Your task to perform on an android device: Do I have any events this weekend? Image 0: 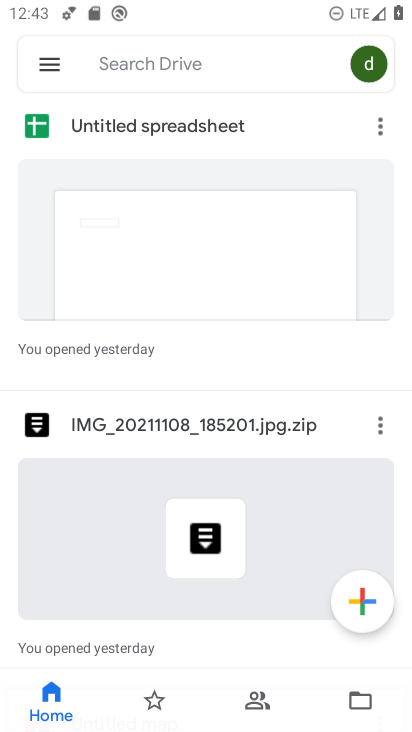
Step 0: press home button
Your task to perform on an android device: Do I have any events this weekend? Image 1: 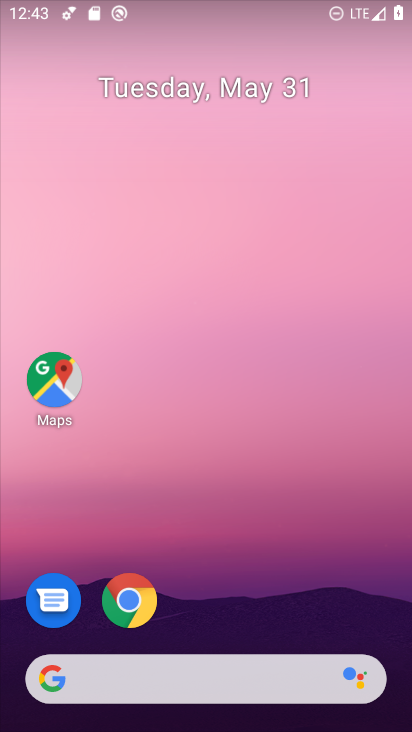
Step 1: drag from (246, 713) to (233, 282)
Your task to perform on an android device: Do I have any events this weekend? Image 2: 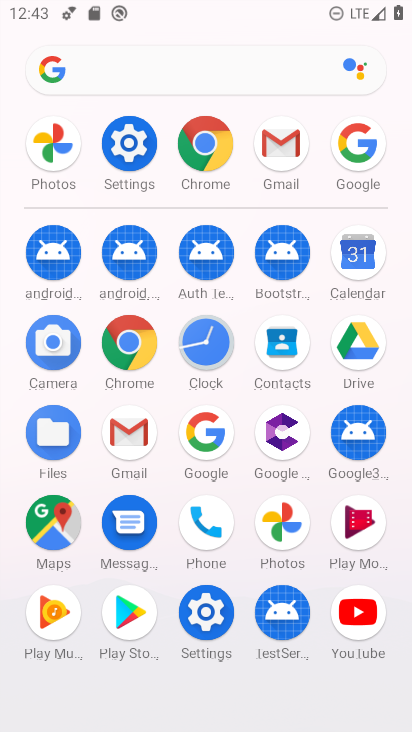
Step 2: click (355, 260)
Your task to perform on an android device: Do I have any events this weekend? Image 3: 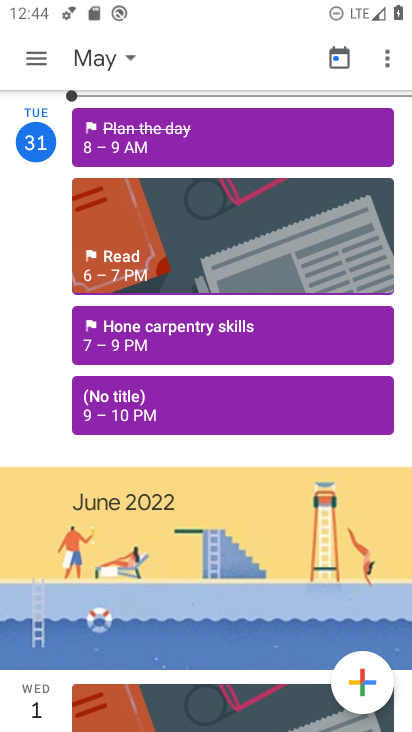
Step 3: click (122, 58)
Your task to perform on an android device: Do I have any events this weekend? Image 4: 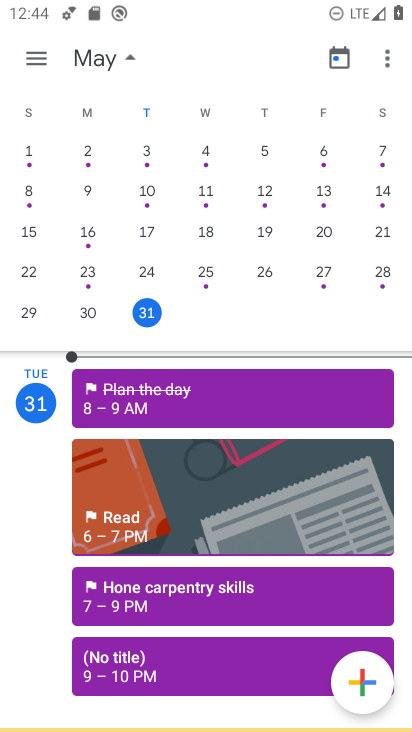
Step 4: drag from (377, 222) to (29, 213)
Your task to perform on an android device: Do I have any events this weekend? Image 5: 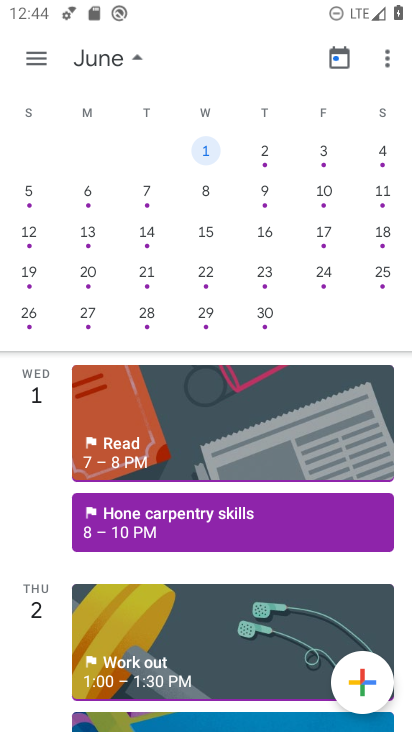
Step 5: click (380, 146)
Your task to perform on an android device: Do I have any events this weekend? Image 6: 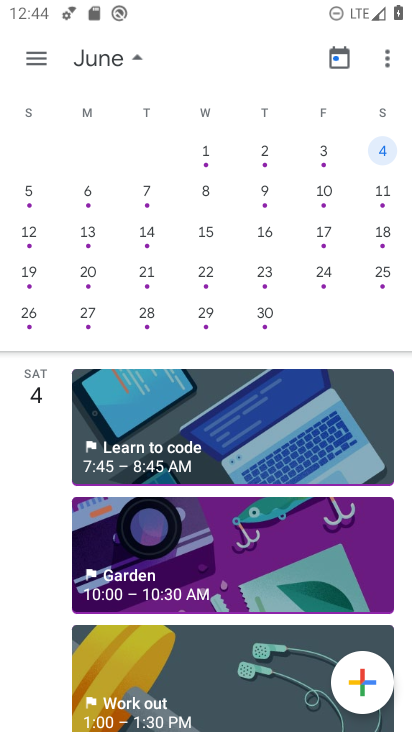
Step 6: click (36, 58)
Your task to perform on an android device: Do I have any events this weekend? Image 7: 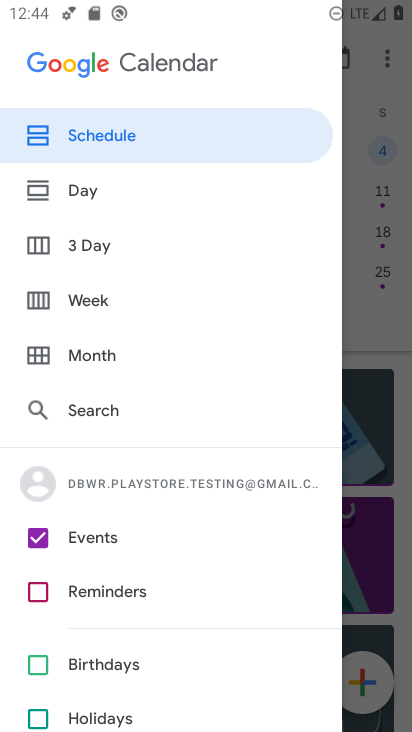
Step 7: click (81, 296)
Your task to perform on an android device: Do I have any events this weekend? Image 8: 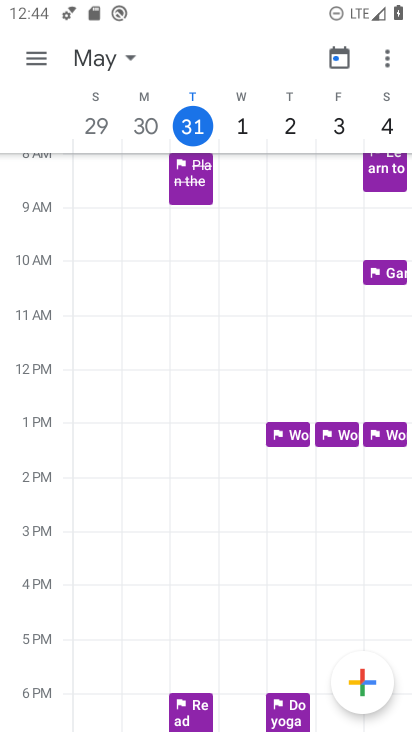
Step 8: task complete